Your task to perform on an android device: What's the weather going to be this weekend? Image 0: 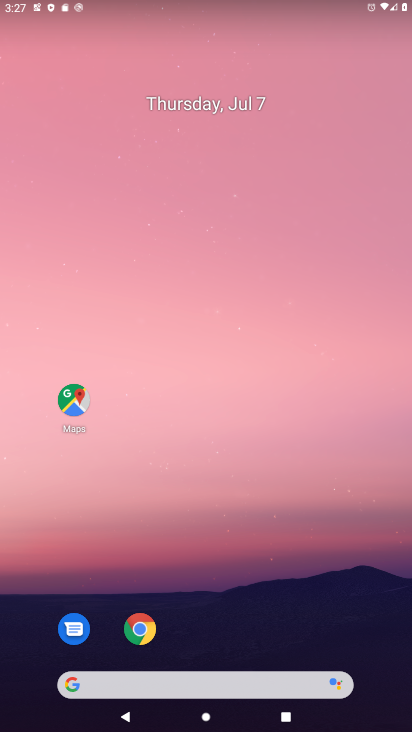
Step 0: click (220, 692)
Your task to perform on an android device: What's the weather going to be this weekend? Image 1: 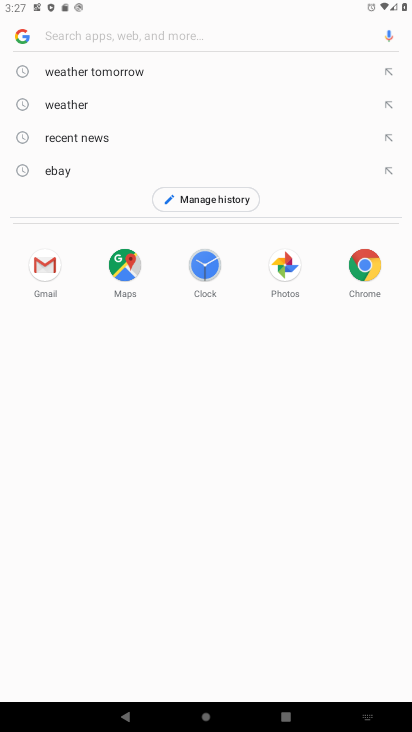
Step 1: type "weekend weather"
Your task to perform on an android device: What's the weather going to be this weekend? Image 2: 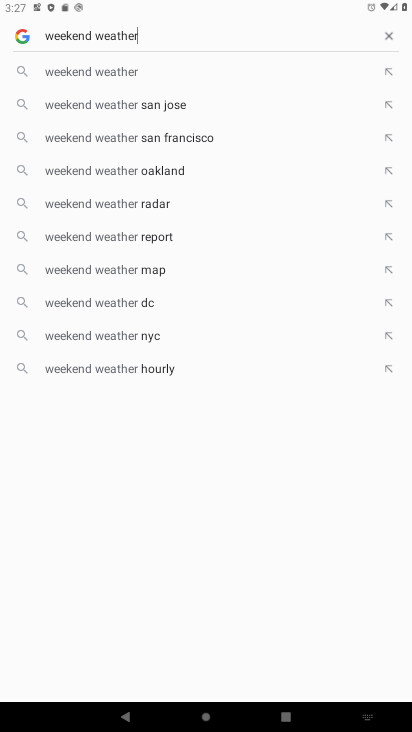
Step 2: click (145, 79)
Your task to perform on an android device: What's the weather going to be this weekend? Image 3: 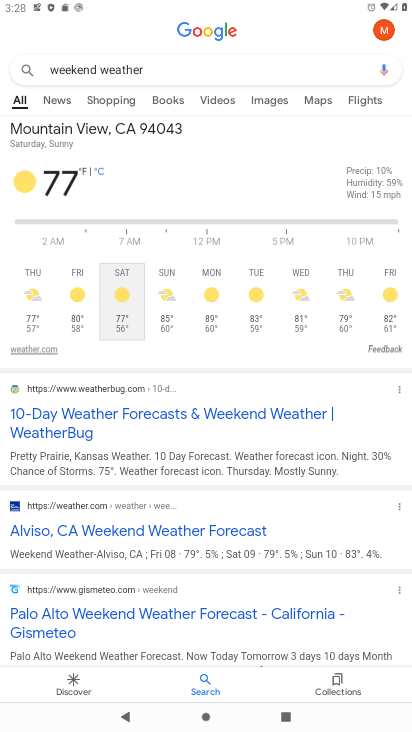
Step 3: task complete